Your task to perform on an android device: Go to calendar. Show me events next week Image 0: 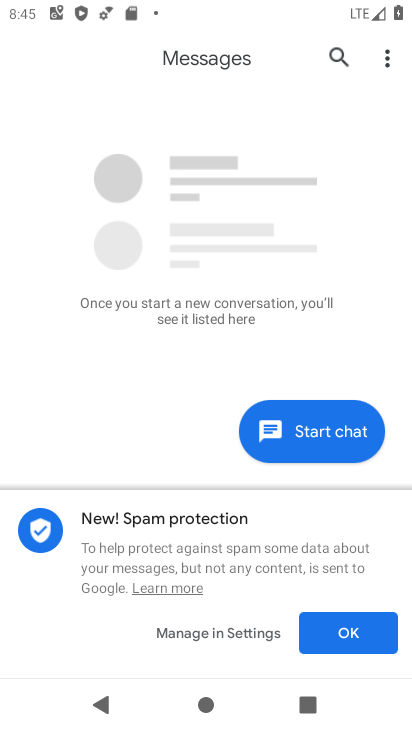
Step 0: press home button
Your task to perform on an android device: Go to calendar. Show me events next week Image 1: 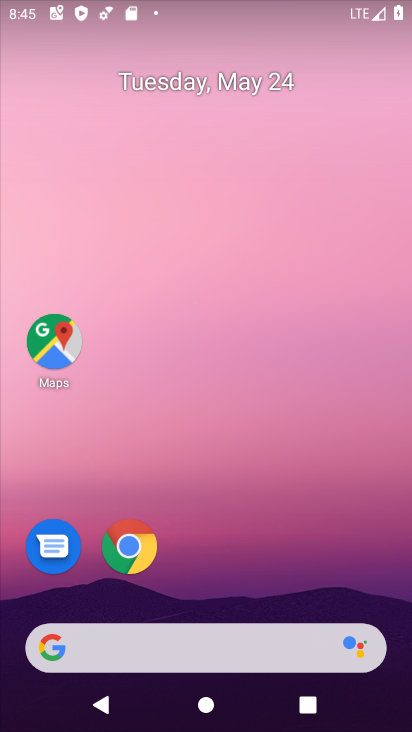
Step 1: drag from (249, 544) to (256, 14)
Your task to perform on an android device: Go to calendar. Show me events next week Image 2: 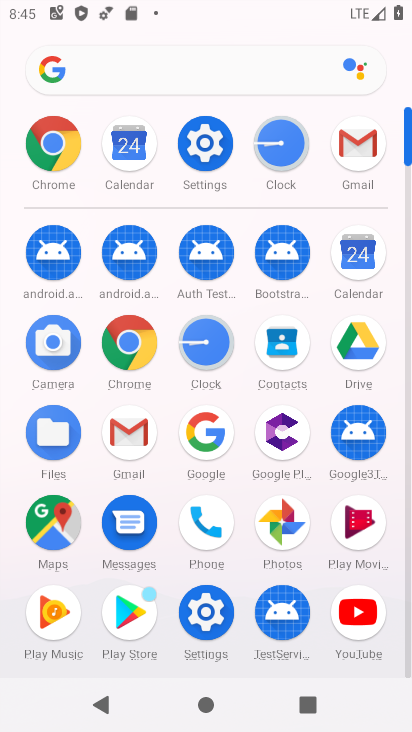
Step 2: click (128, 152)
Your task to perform on an android device: Go to calendar. Show me events next week Image 3: 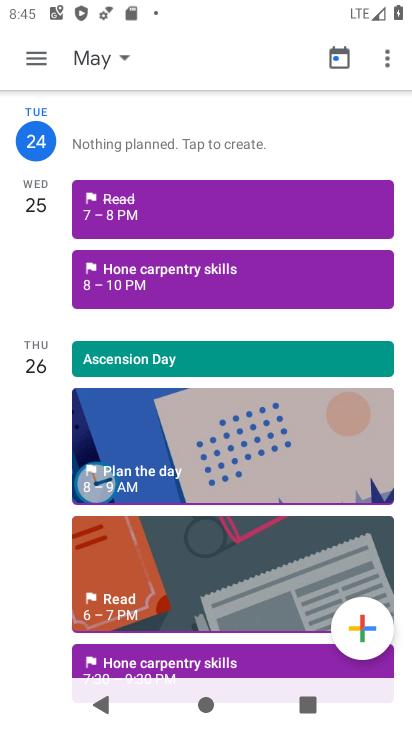
Step 3: click (38, 59)
Your task to perform on an android device: Go to calendar. Show me events next week Image 4: 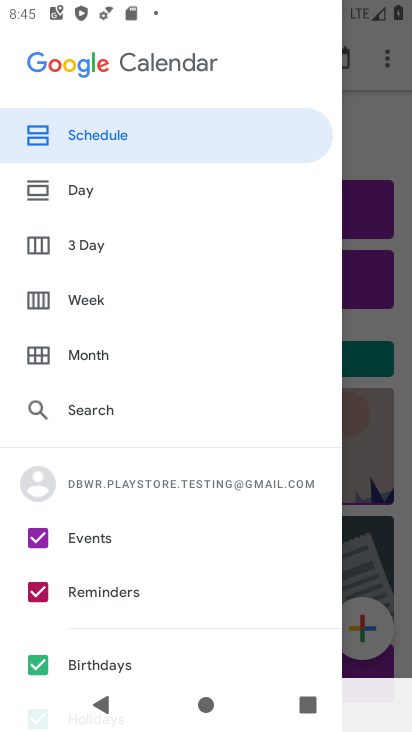
Step 4: click (33, 294)
Your task to perform on an android device: Go to calendar. Show me events next week Image 5: 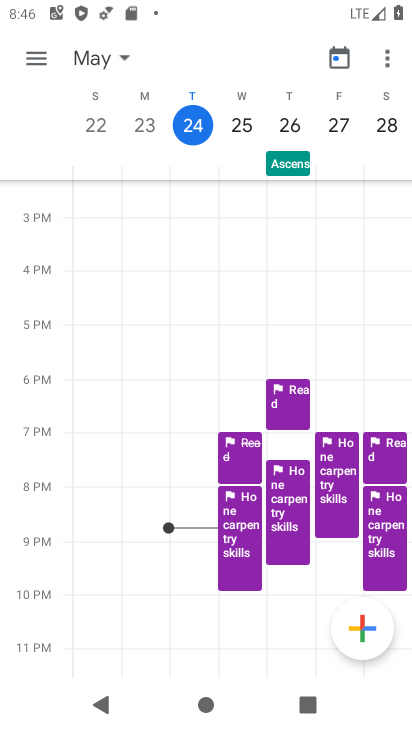
Step 5: task complete